Your task to perform on an android device: What is the recent news? Image 0: 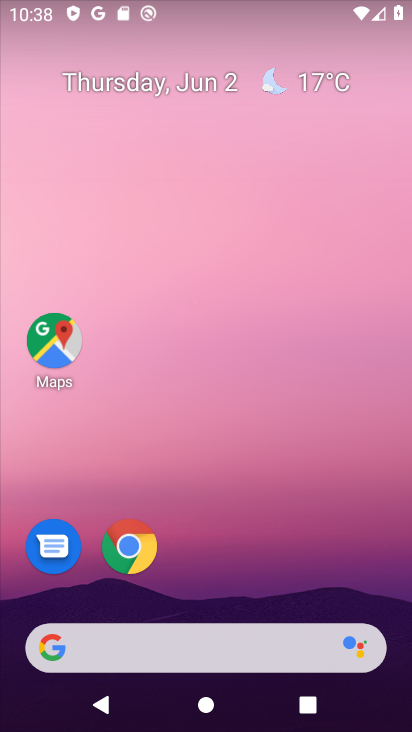
Step 0: drag from (343, 541) to (219, 7)
Your task to perform on an android device: What is the recent news? Image 1: 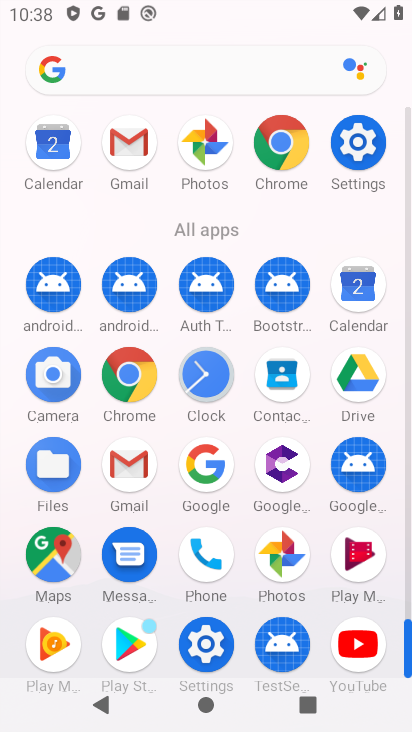
Step 1: drag from (4, 525) to (3, 208)
Your task to perform on an android device: What is the recent news? Image 2: 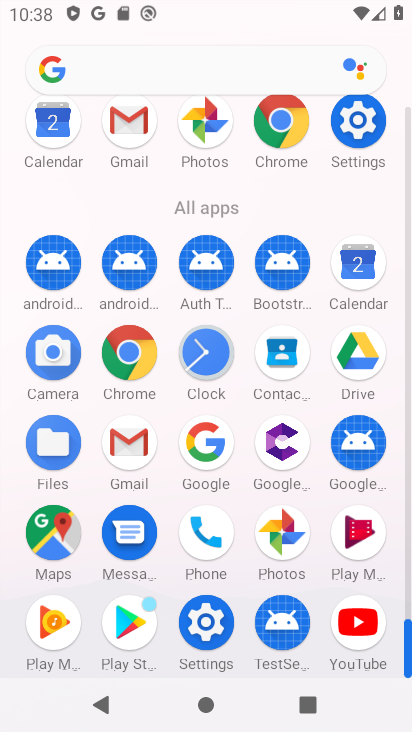
Step 2: click (127, 353)
Your task to perform on an android device: What is the recent news? Image 3: 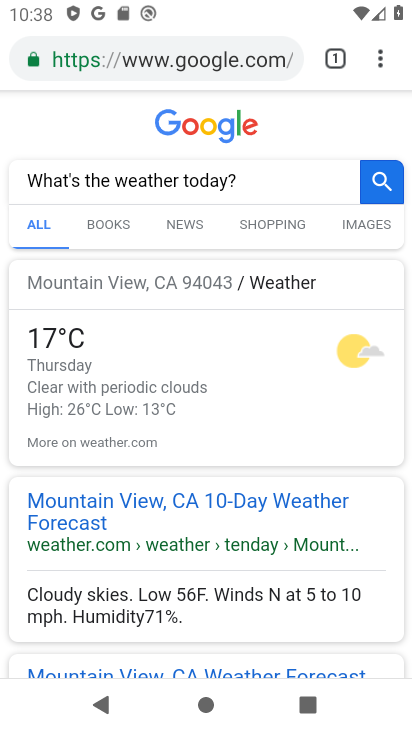
Step 3: click (197, 46)
Your task to perform on an android device: What is the recent news? Image 4: 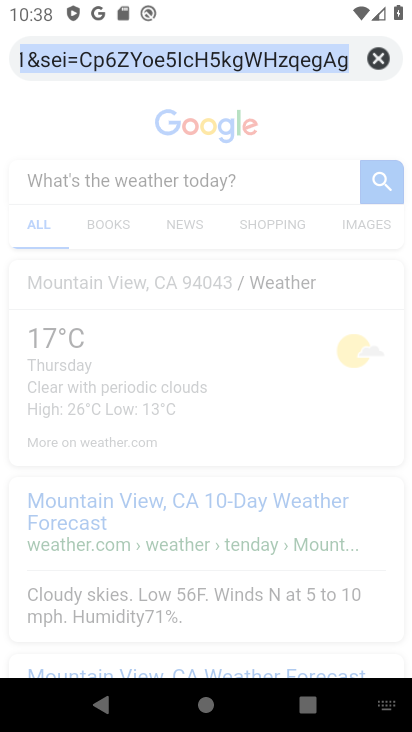
Step 4: click (374, 53)
Your task to perform on an android device: What is the recent news? Image 5: 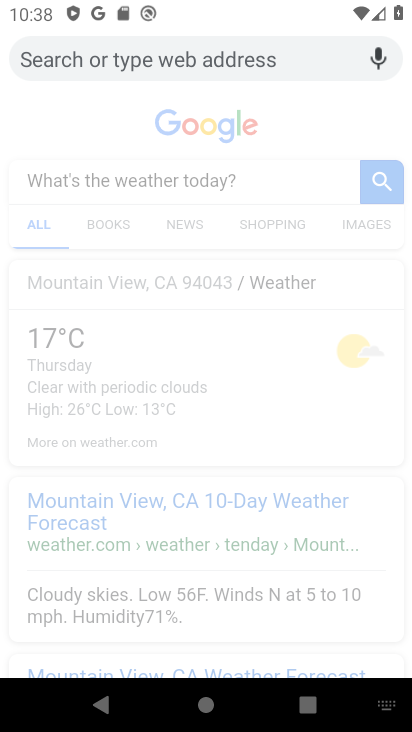
Step 5: type "What is the recent news?"
Your task to perform on an android device: What is the recent news? Image 6: 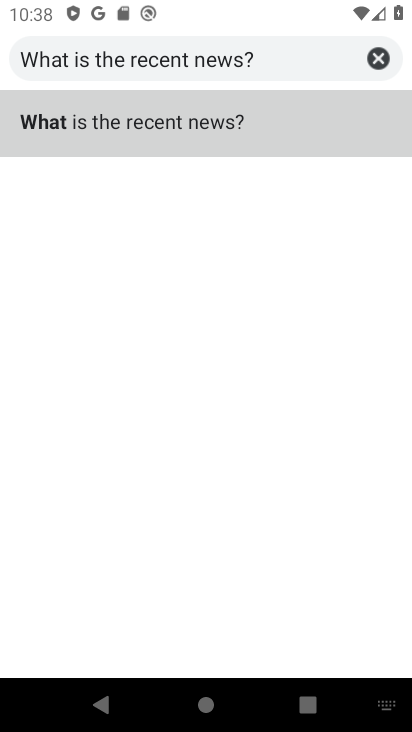
Step 6: click (181, 113)
Your task to perform on an android device: What is the recent news? Image 7: 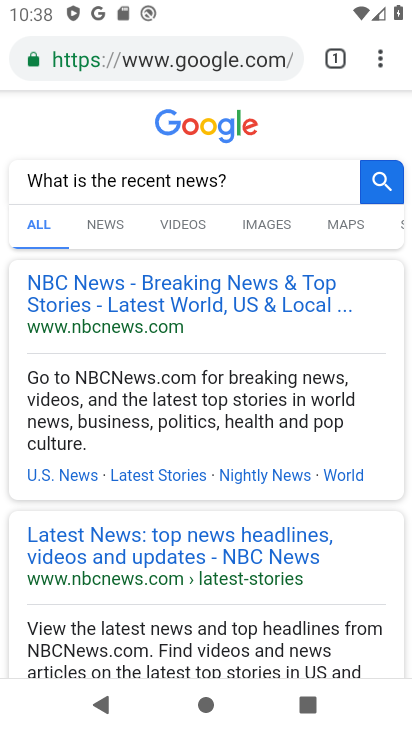
Step 7: click (105, 220)
Your task to perform on an android device: What is the recent news? Image 8: 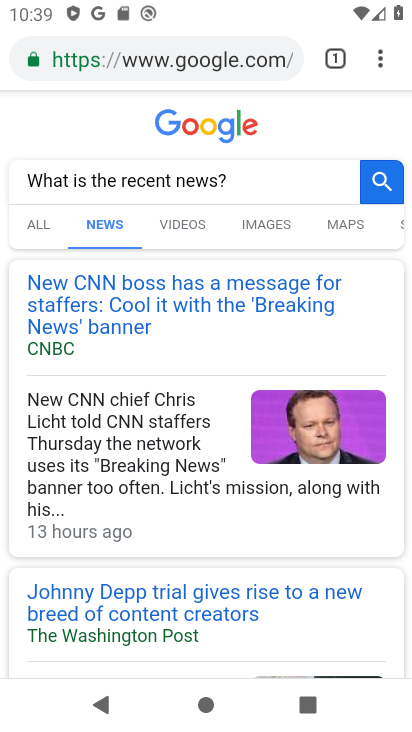
Step 8: task complete